Your task to perform on an android device: Go to internet settings Image 0: 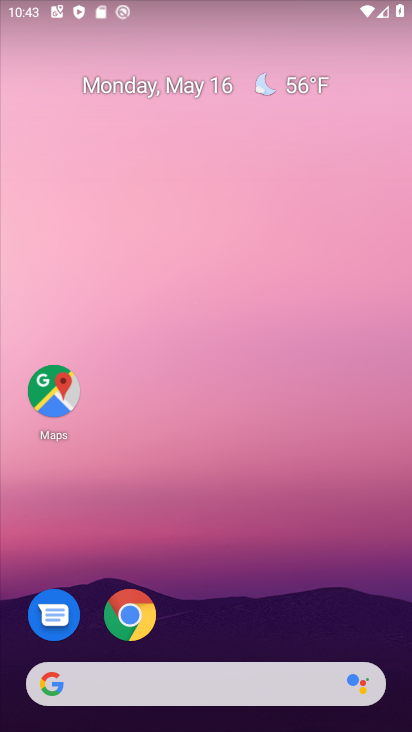
Step 0: drag from (281, 665) to (318, 267)
Your task to perform on an android device: Go to internet settings Image 1: 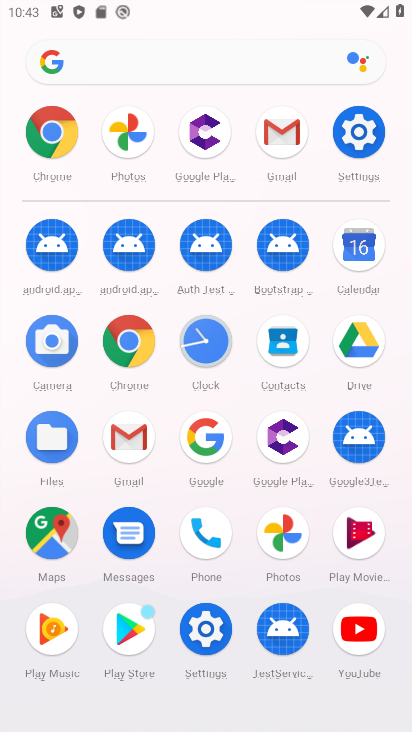
Step 1: click (345, 140)
Your task to perform on an android device: Go to internet settings Image 2: 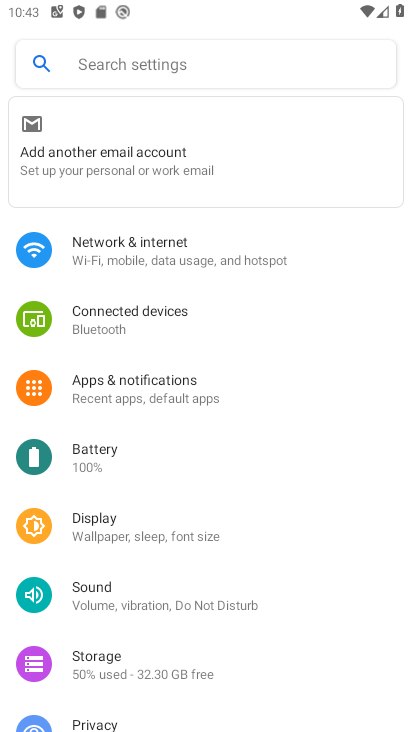
Step 2: click (130, 236)
Your task to perform on an android device: Go to internet settings Image 3: 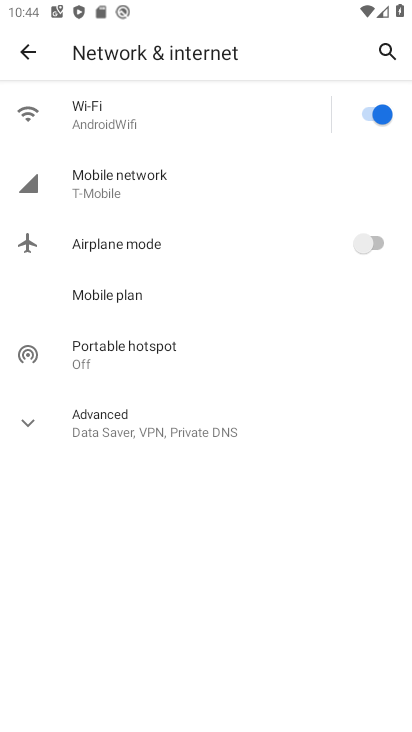
Step 3: task complete